Your task to perform on an android device: turn on notifications settings in the gmail app Image 0: 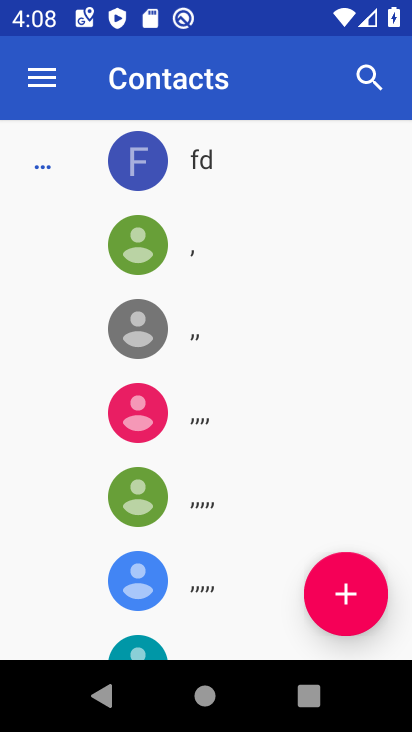
Step 0: press home button
Your task to perform on an android device: turn on notifications settings in the gmail app Image 1: 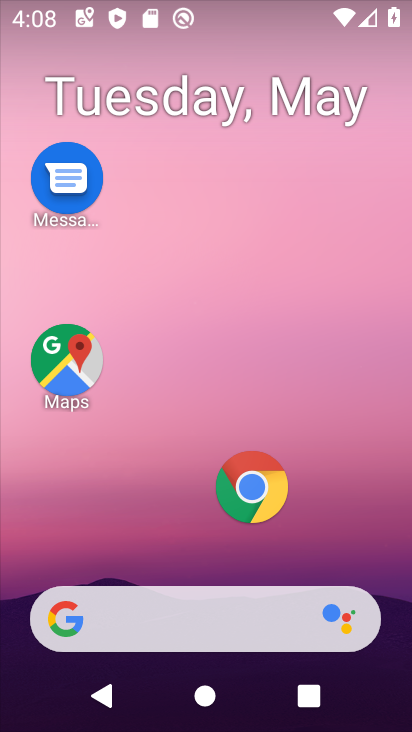
Step 1: drag from (210, 413) to (240, 2)
Your task to perform on an android device: turn on notifications settings in the gmail app Image 2: 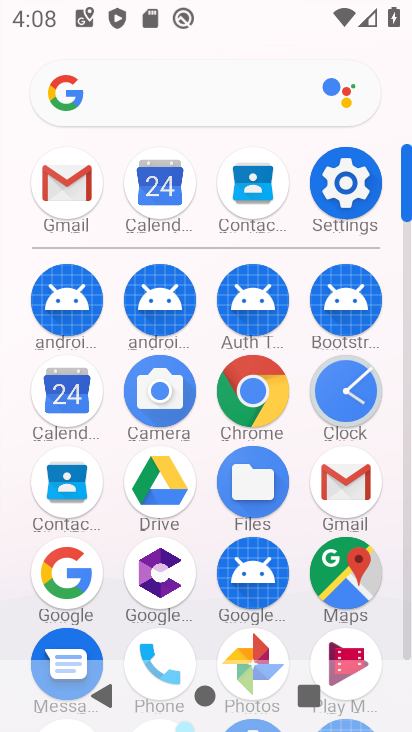
Step 2: click (350, 186)
Your task to perform on an android device: turn on notifications settings in the gmail app Image 3: 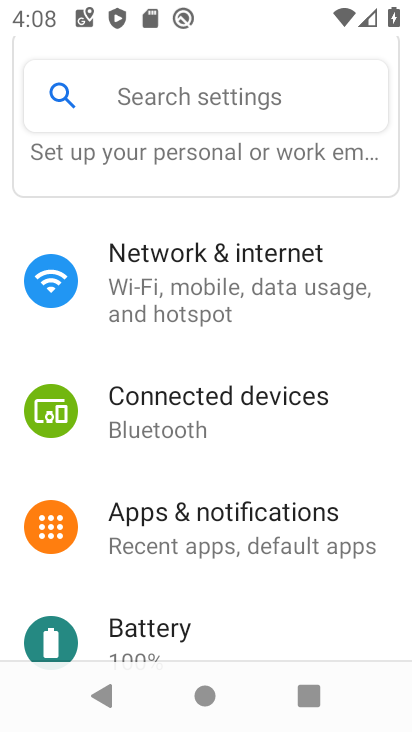
Step 3: click (261, 540)
Your task to perform on an android device: turn on notifications settings in the gmail app Image 4: 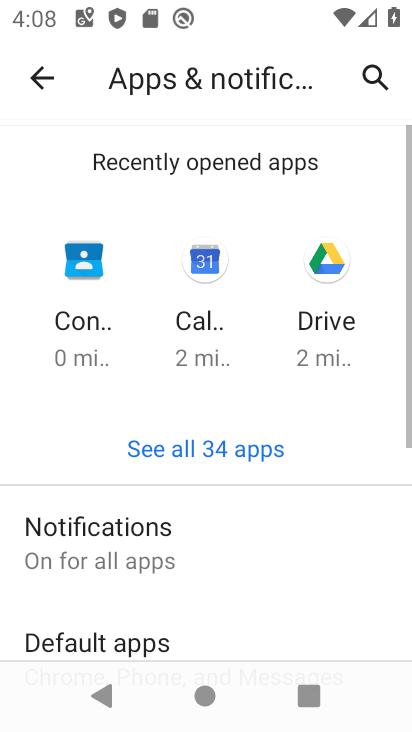
Step 4: click (108, 546)
Your task to perform on an android device: turn on notifications settings in the gmail app Image 5: 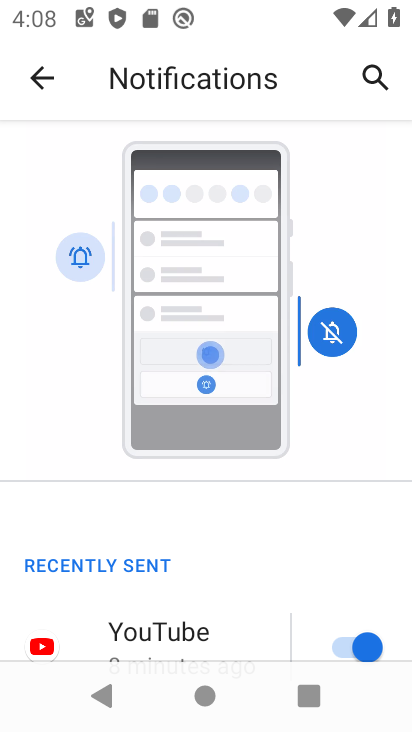
Step 5: drag from (240, 407) to (300, 9)
Your task to perform on an android device: turn on notifications settings in the gmail app Image 6: 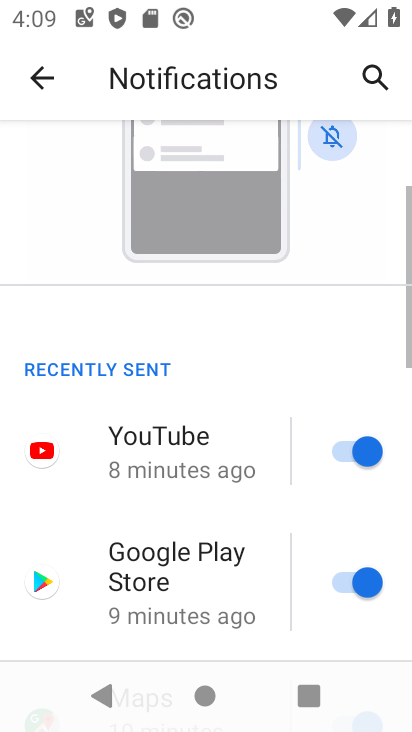
Step 6: drag from (169, 620) to (197, 307)
Your task to perform on an android device: turn on notifications settings in the gmail app Image 7: 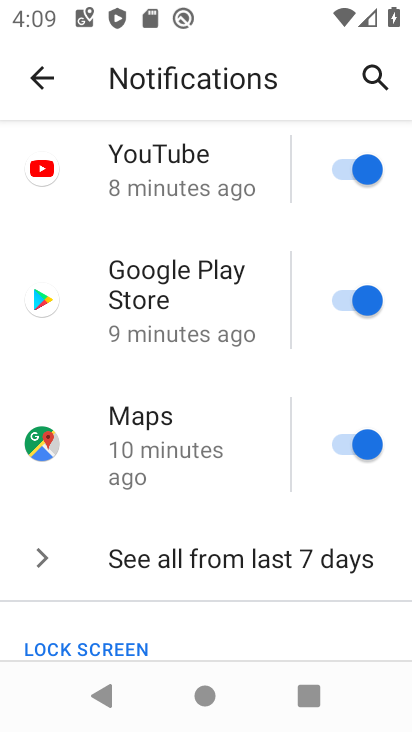
Step 7: drag from (191, 570) to (210, 307)
Your task to perform on an android device: turn on notifications settings in the gmail app Image 8: 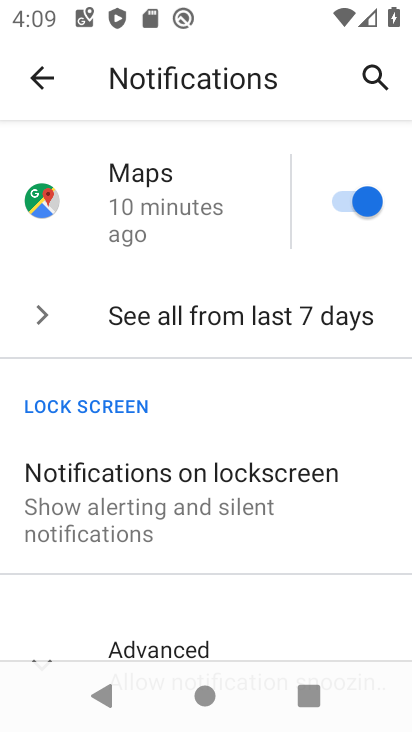
Step 8: drag from (235, 595) to (317, 318)
Your task to perform on an android device: turn on notifications settings in the gmail app Image 9: 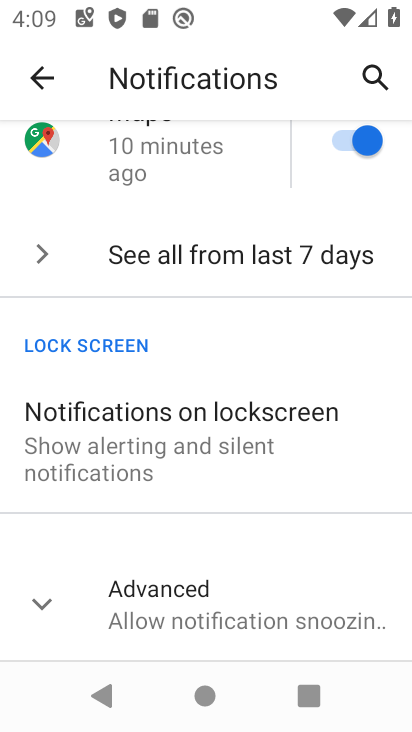
Step 9: click (168, 611)
Your task to perform on an android device: turn on notifications settings in the gmail app Image 10: 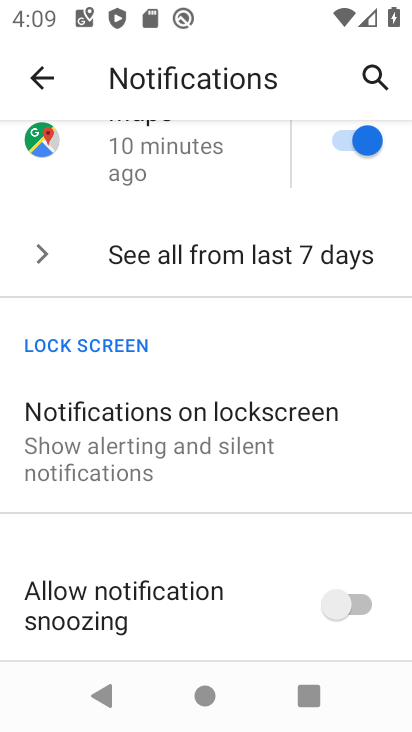
Step 10: click (145, 446)
Your task to perform on an android device: turn on notifications settings in the gmail app Image 11: 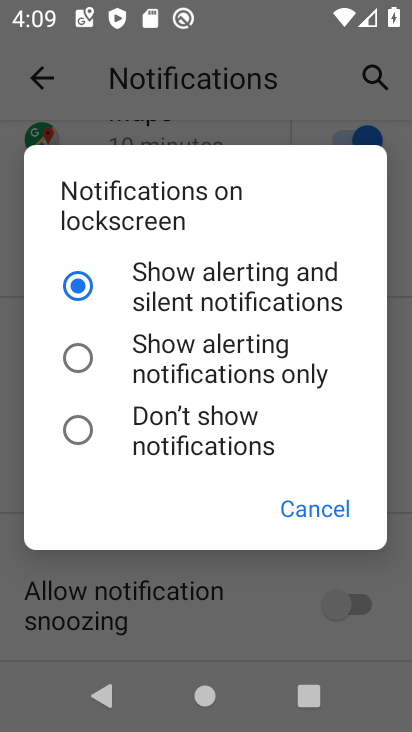
Step 11: click (330, 517)
Your task to perform on an android device: turn on notifications settings in the gmail app Image 12: 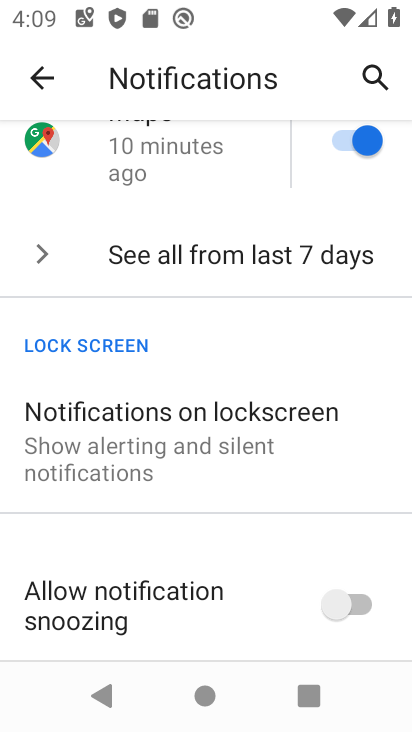
Step 12: press home button
Your task to perform on an android device: turn on notifications settings in the gmail app Image 13: 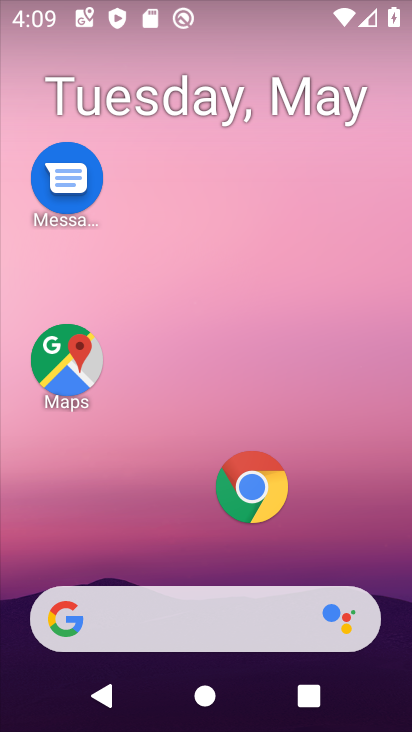
Step 13: drag from (250, 557) to (315, 13)
Your task to perform on an android device: turn on notifications settings in the gmail app Image 14: 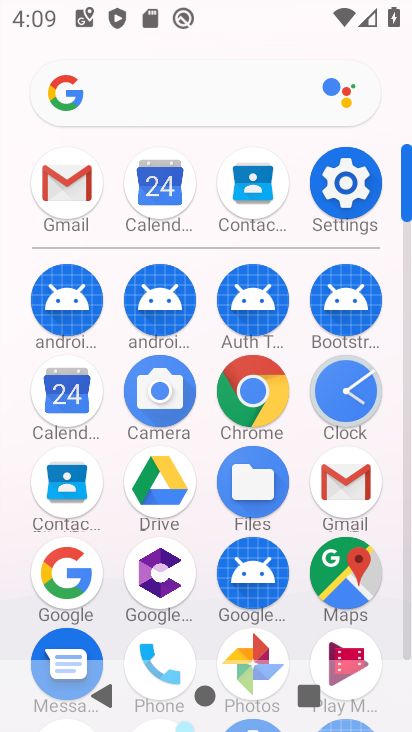
Step 14: click (344, 490)
Your task to perform on an android device: turn on notifications settings in the gmail app Image 15: 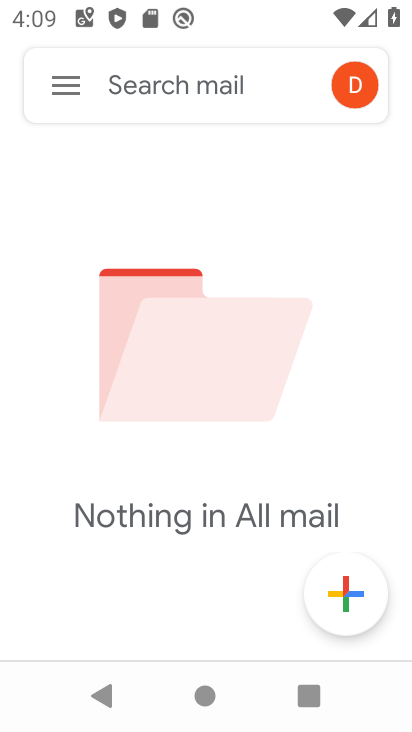
Step 15: click (69, 89)
Your task to perform on an android device: turn on notifications settings in the gmail app Image 16: 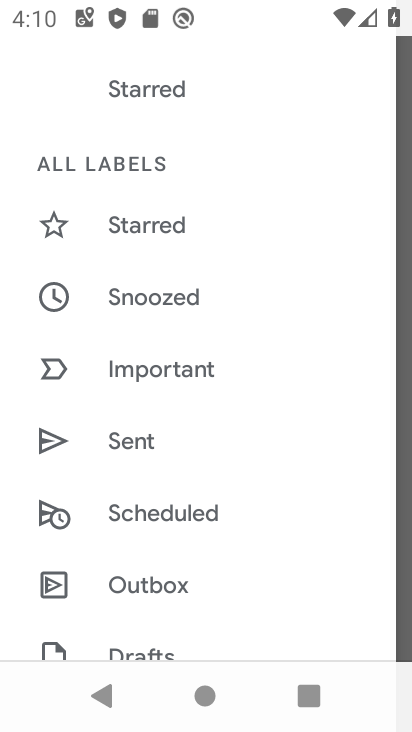
Step 16: drag from (189, 523) to (151, 196)
Your task to perform on an android device: turn on notifications settings in the gmail app Image 17: 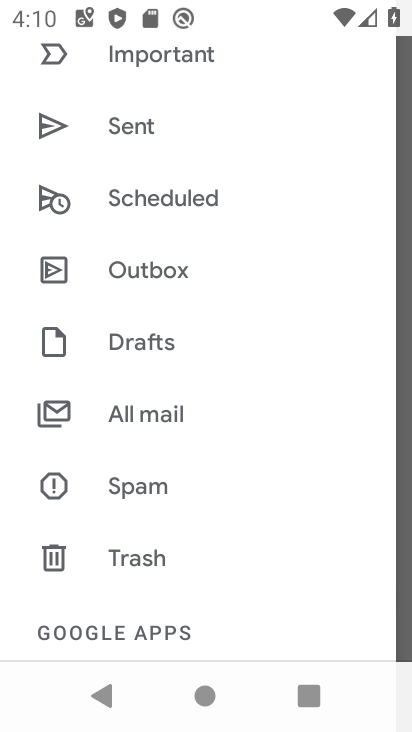
Step 17: drag from (157, 580) to (161, 83)
Your task to perform on an android device: turn on notifications settings in the gmail app Image 18: 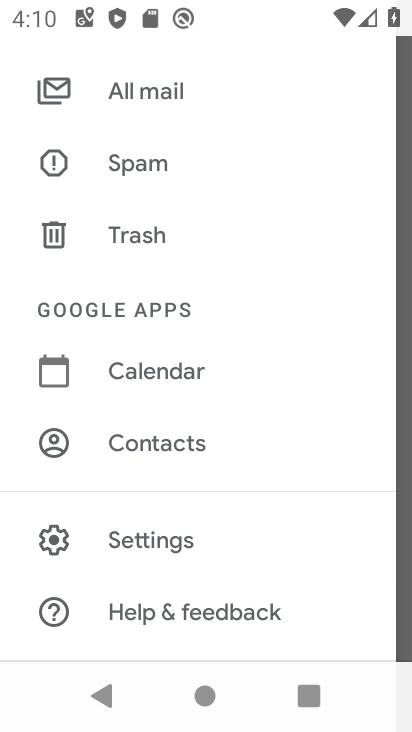
Step 18: click (155, 538)
Your task to perform on an android device: turn on notifications settings in the gmail app Image 19: 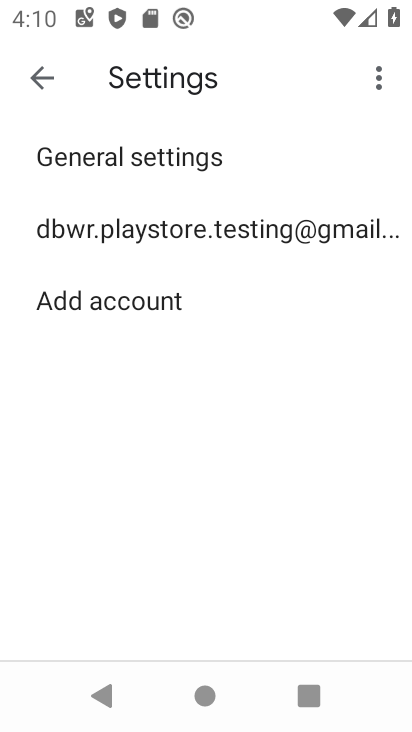
Step 19: click (196, 246)
Your task to perform on an android device: turn on notifications settings in the gmail app Image 20: 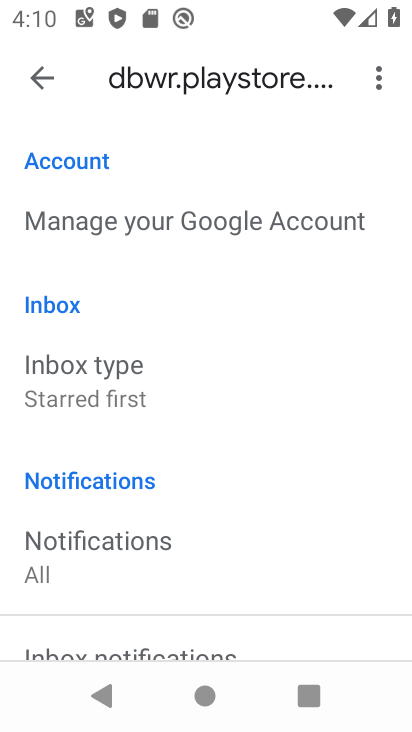
Step 20: drag from (113, 589) to (170, 258)
Your task to perform on an android device: turn on notifications settings in the gmail app Image 21: 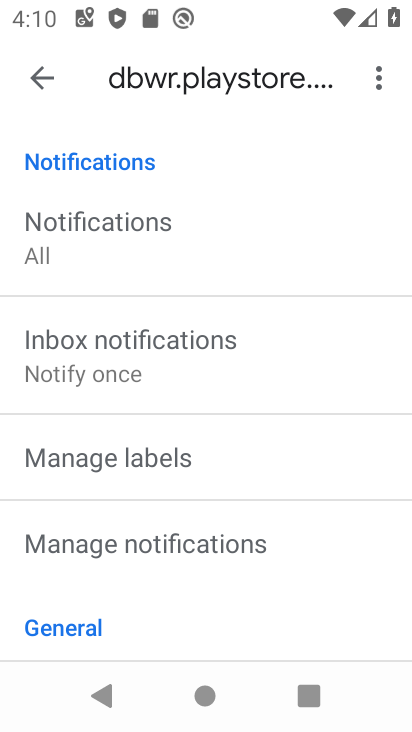
Step 21: drag from (186, 591) to (186, 308)
Your task to perform on an android device: turn on notifications settings in the gmail app Image 22: 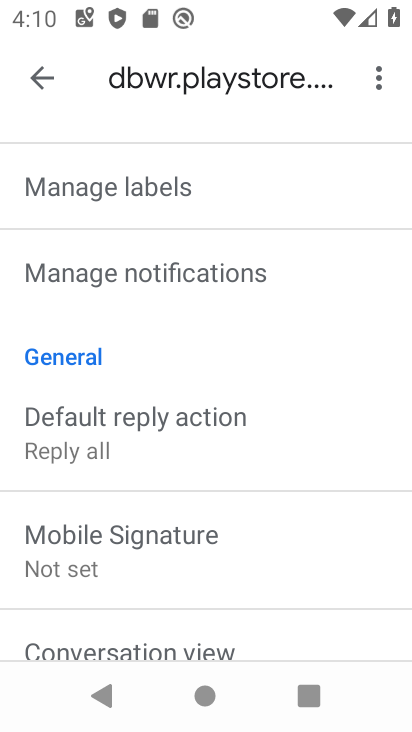
Step 22: drag from (159, 603) to (204, 332)
Your task to perform on an android device: turn on notifications settings in the gmail app Image 23: 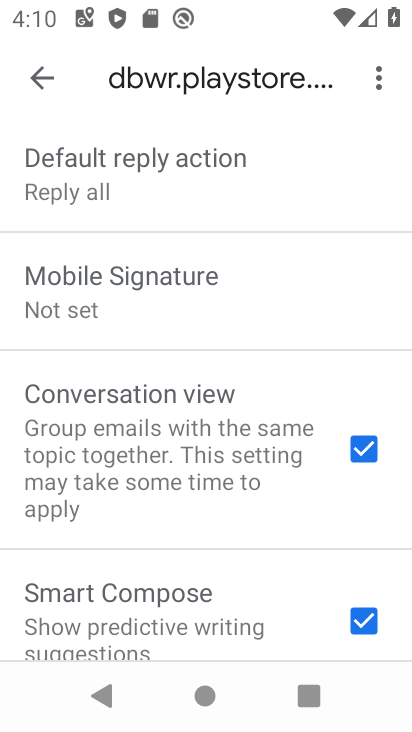
Step 23: drag from (222, 356) to (163, 691)
Your task to perform on an android device: turn on notifications settings in the gmail app Image 24: 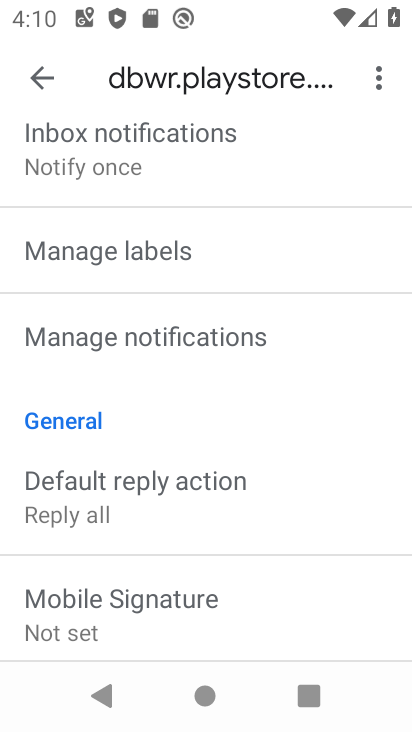
Step 24: drag from (221, 351) to (155, 727)
Your task to perform on an android device: turn on notifications settings in the gmail app Image 25: 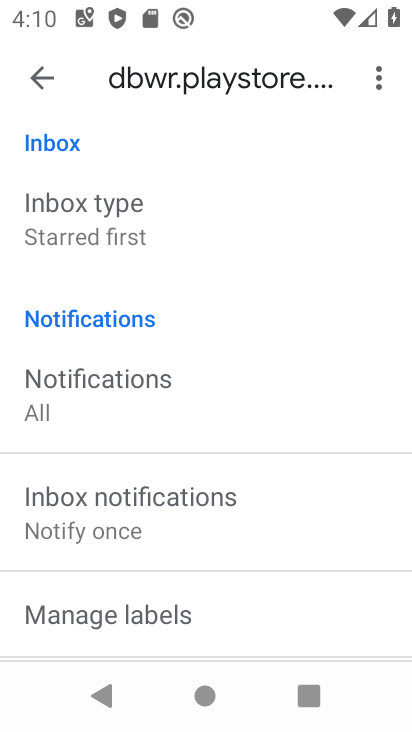
Step 25: click (71, 304)
Your task to perform on an android device: turn on notifications settings in the gmail app Image 26: 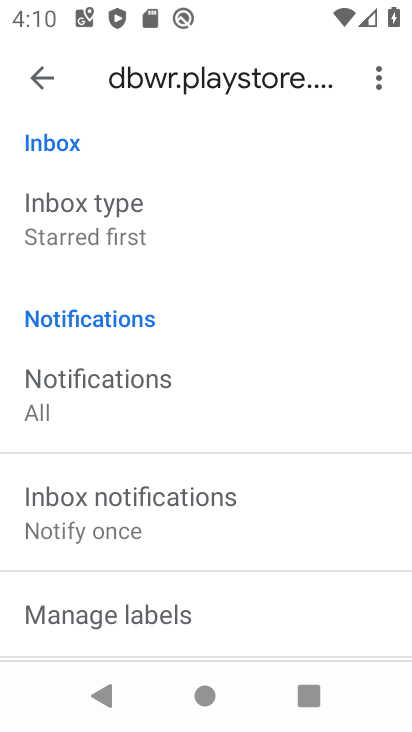
Step 26: click (85, 324)
Your task to perform on an android device: turn on notifications settings in the gmail app Image 27: 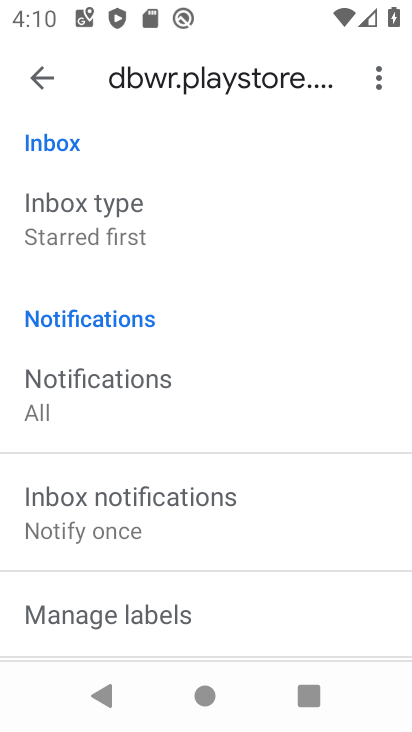
Step 27: click (104, 391)
Your task to perform on an android device: turn on notifications settings in the gmail app Image 28: 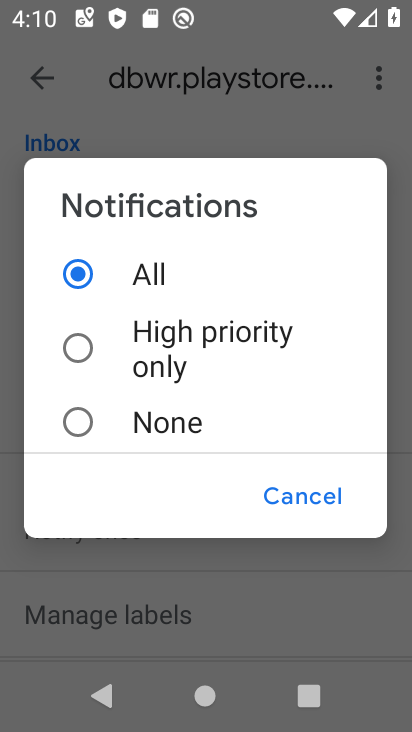
Step 28: task complete